Your task to perform on an android device: Go to Maps Image 0: 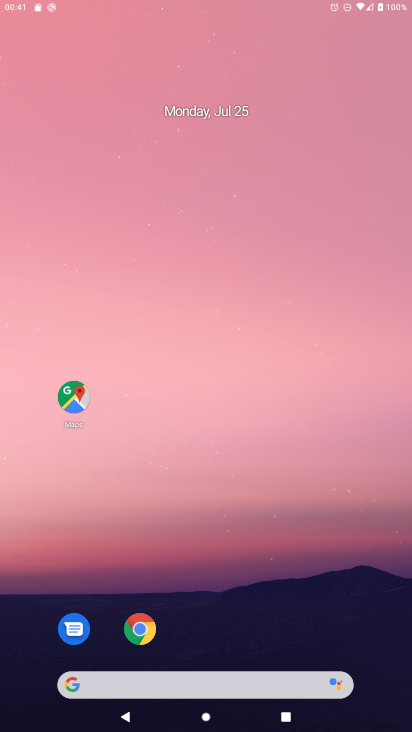
Step 0: click (203, 333)
Your task to perform on an android device: Go to Maps Image 1: 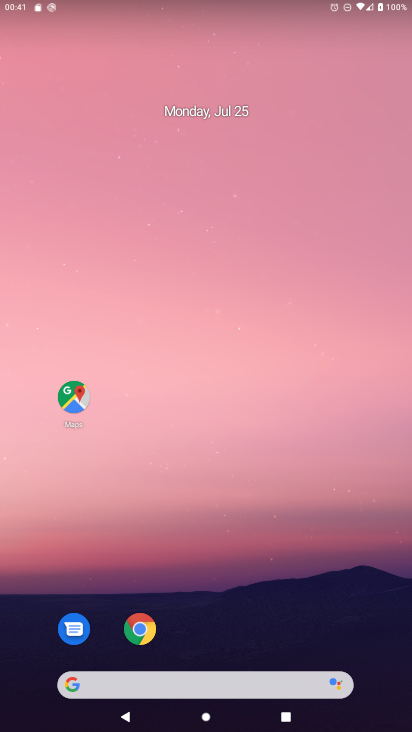
Step 1: click (64, 390)
Your task to perform on an android device: Go to Maps Image 2: 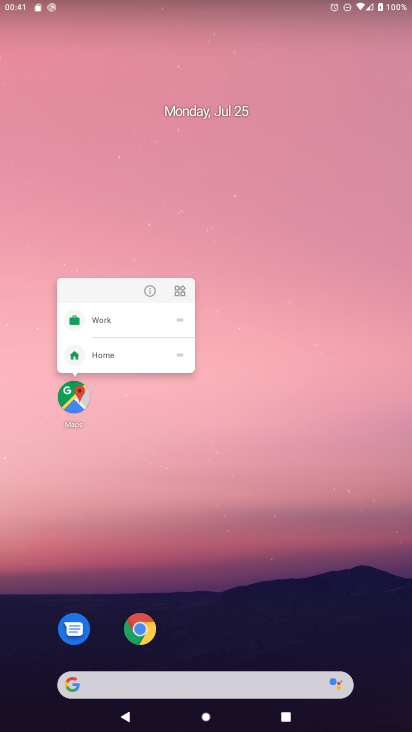
Step 2: drag from (197, 632) to (212, 104)
Your task to perform on an android device: Go to Maps Image 3: 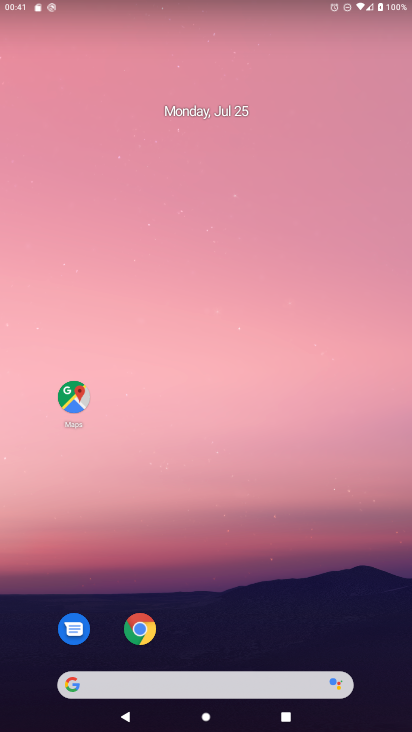
Step 3: click (78, 402)
Your task to perform on an android device: Go to Maps Image 4: 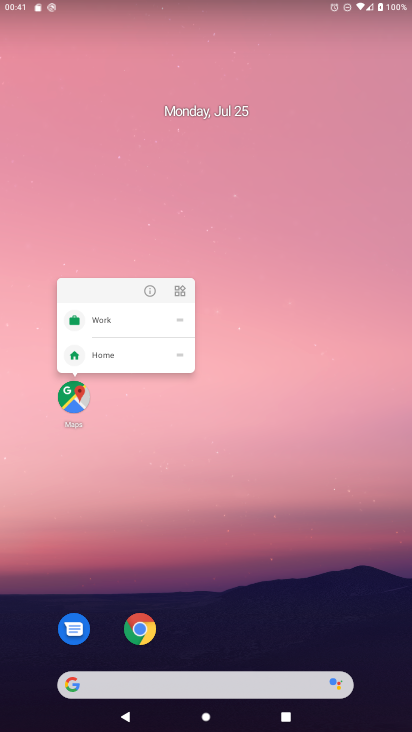
Step 4: click (151, 291)
Your task to perform on an android device: Go to Maps Image 5: 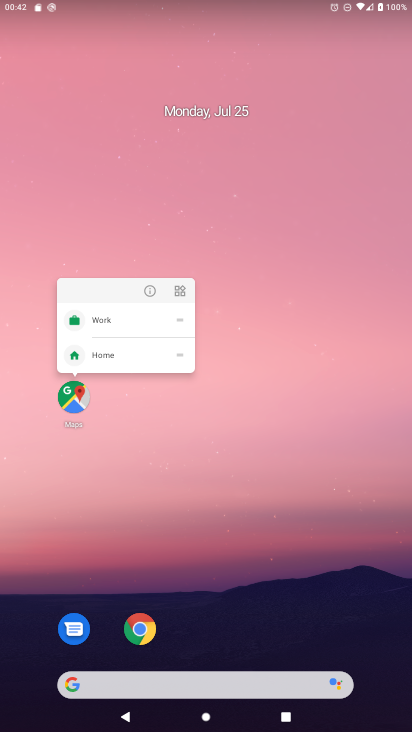
Step 5: click (214, 360)
Your task to perform on an android device: Go to Maps Image 6: 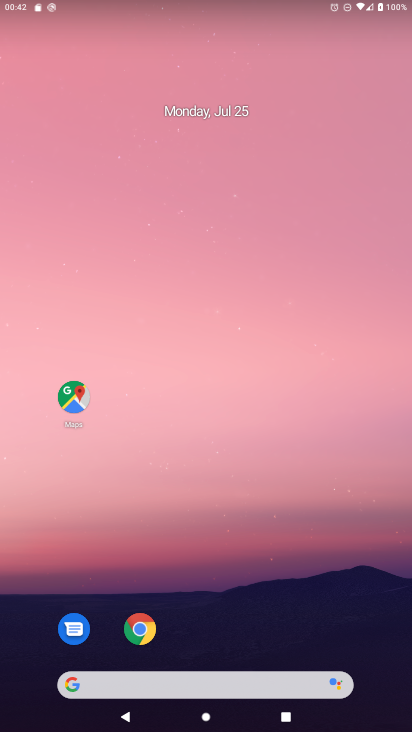
Step 6: click (71, 397)
Your task to perform on an android device: Go to Maps Image 7: 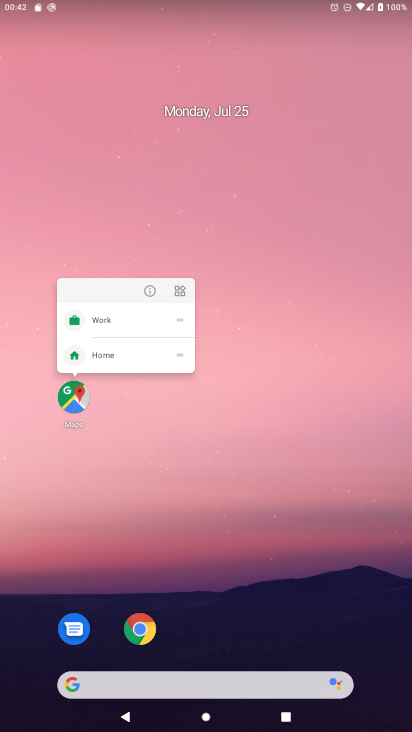
Step 7: click (150, 292)
Your task to perform on an android device: Go to Maps Image 8: 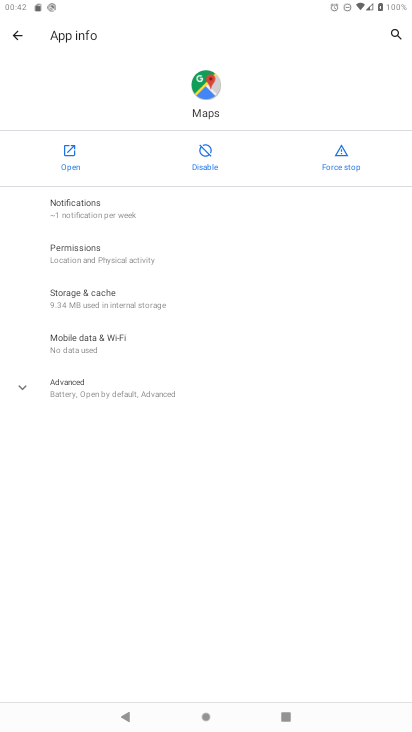
Step 8: click (71, 158)
Your task to perform on an android device: Go to Maps Image 9: 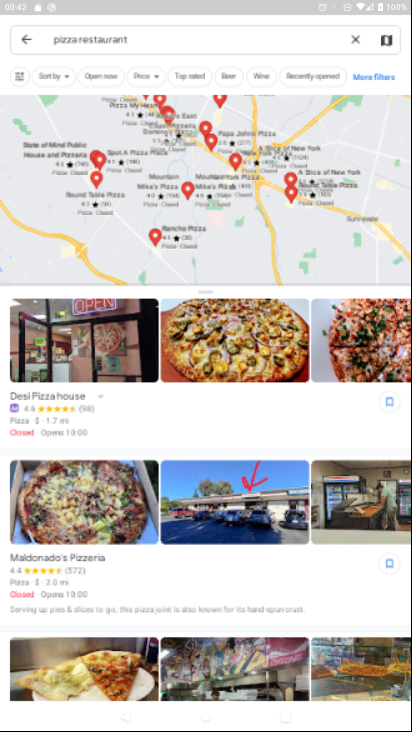
Step 9: click (409, 128)
Your task to perform on an android device: Go to Maps Image 10: 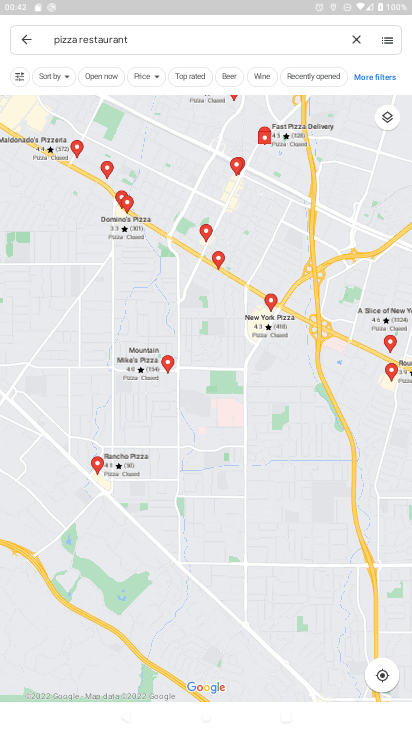
Step 10: task complete